Your task to perform on an android device: open a bookmark in the chrome app Image 0: 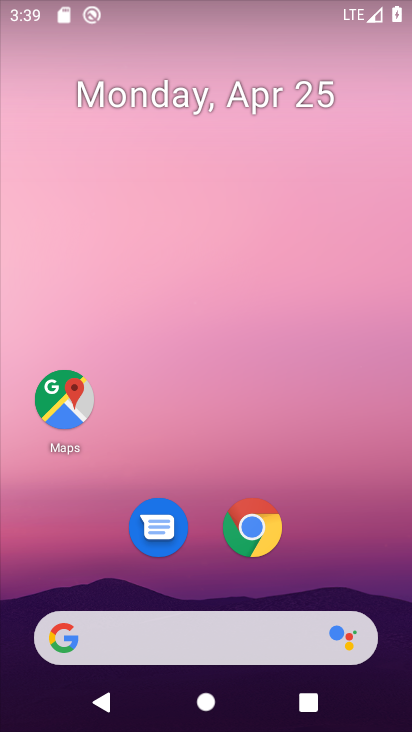
Step 0: click (249, 530)
Your task to perform on an android device: open a bookmark in the chrome app Image 1: 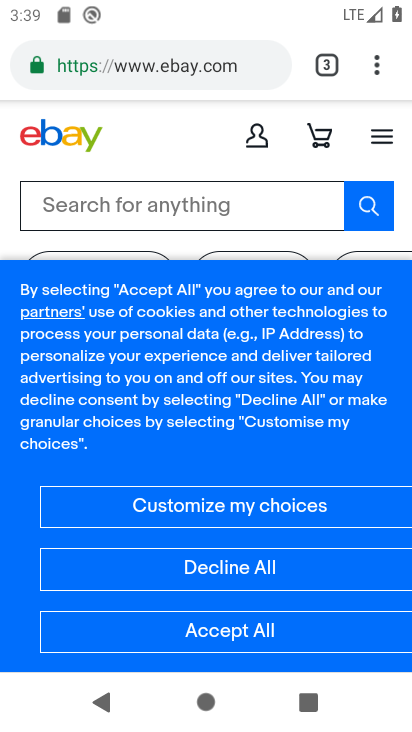
Step 1: click (375, 67)
Your task to perform on an android device: open a bookmark in the chrome app Image 2: 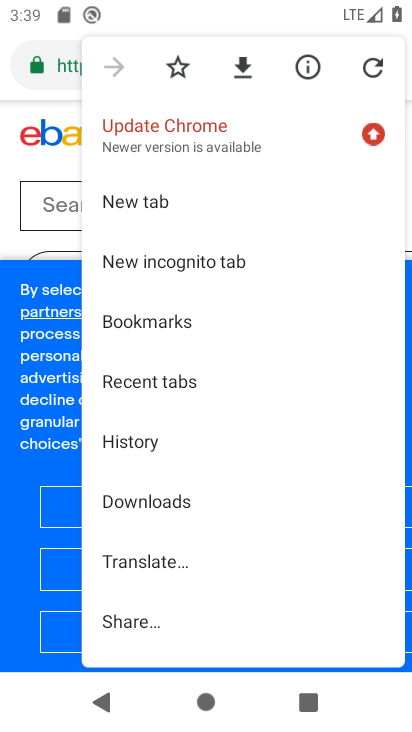
Step 2: click (138, 323)
Your task to perform on an android device: open a bookmark in the chrome app Image 3: 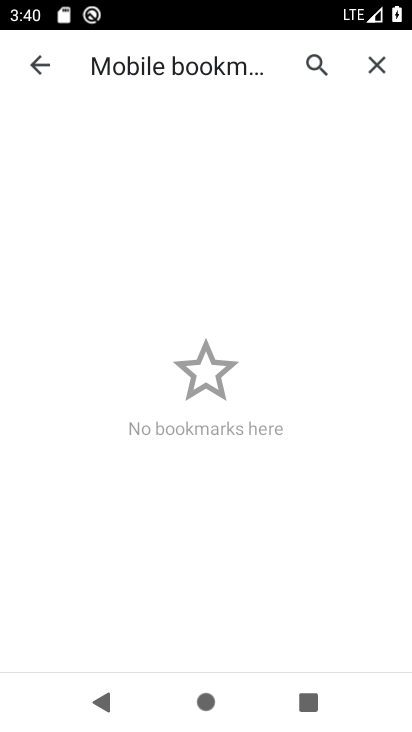
Step 3: task complete